Your task to perform on an android device: Open Google Maps Image 0: 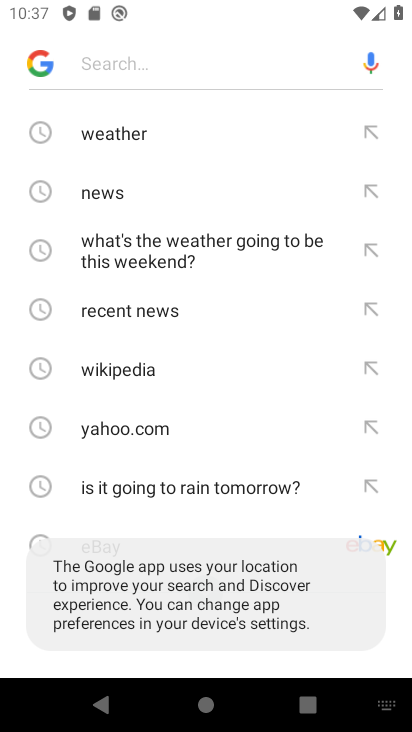
Step 0: press home button
Your task to perform on an android device: Open Google Maps Image 1: 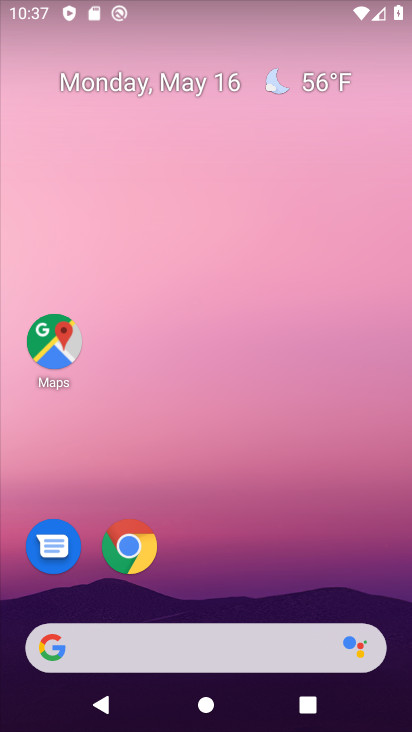
Step 1: drag from (306, 570) to (251, 74)
Your task to perform on an android device: Open Google Maps Image 2: 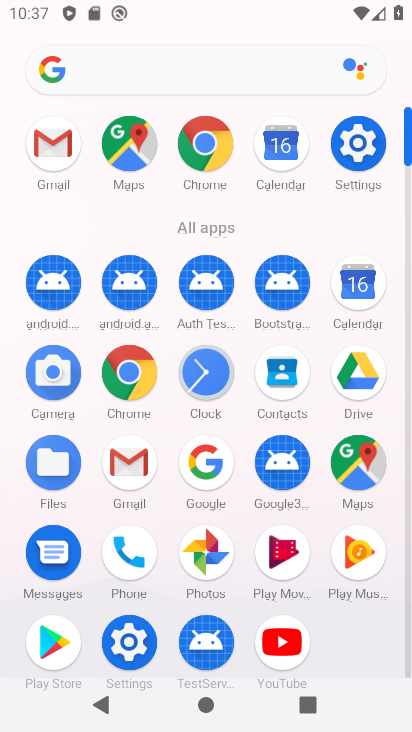
Step 2: click (133, 145)
Your task to perform on an android device: Open Google Maps Image 3: 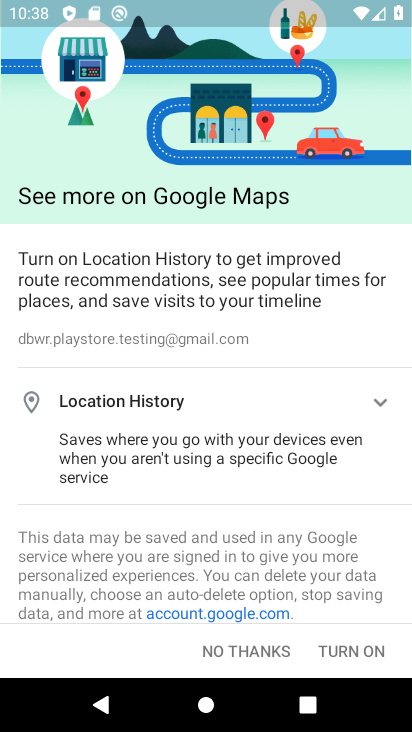
Step 3: click (263, 656)
Your task to perform on an android device: Open Google Maps Image 4: 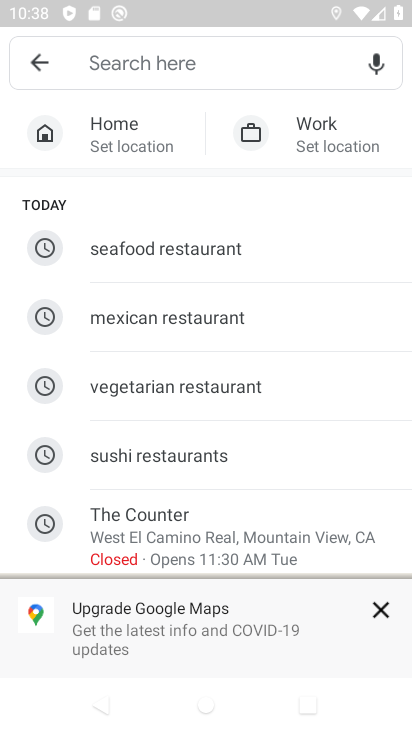
Step 4: task complete